Your task to perform on an android device: delete location history Image 0: 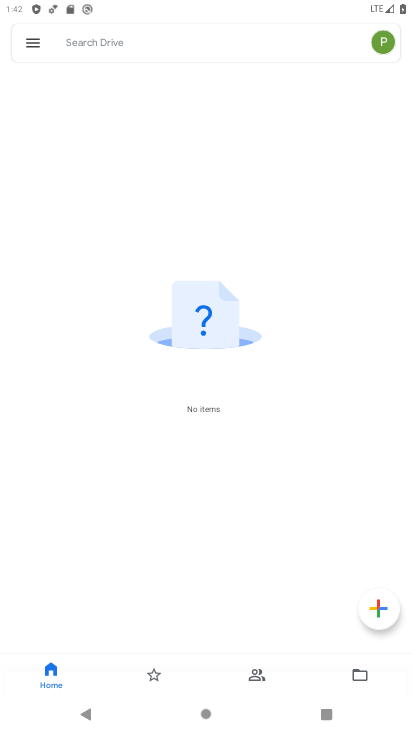
Step 0: press home button
Your task to perform on an android device: delete location history Image 1: 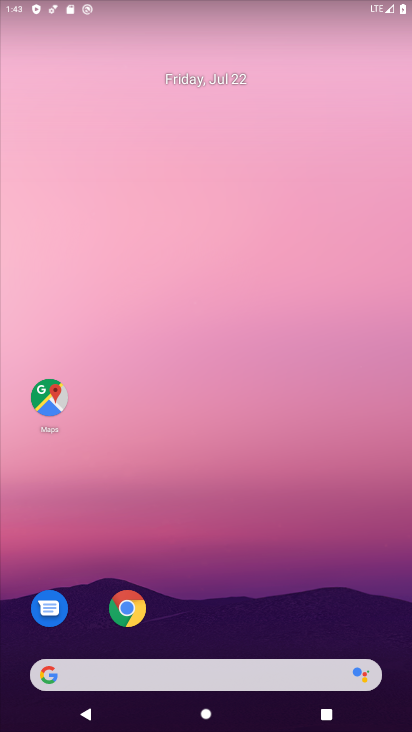
Step 1: drag from (393, 667) to (303, 42)
Your task to perform on an android device: delete location history Image 2: 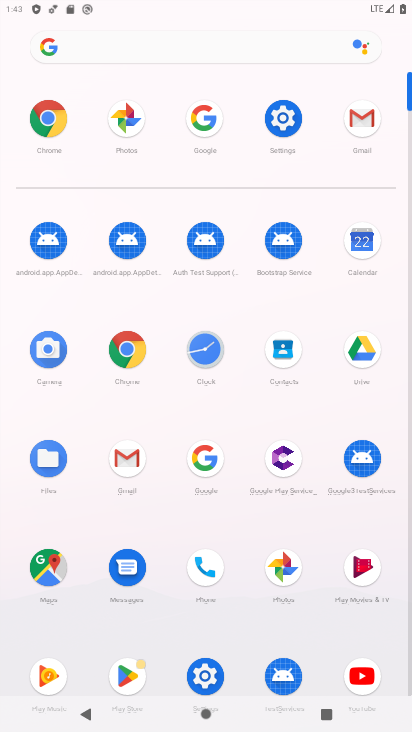
Step 2: click (288, 123)
Your task to perform on an android device: delete location history Image 3: 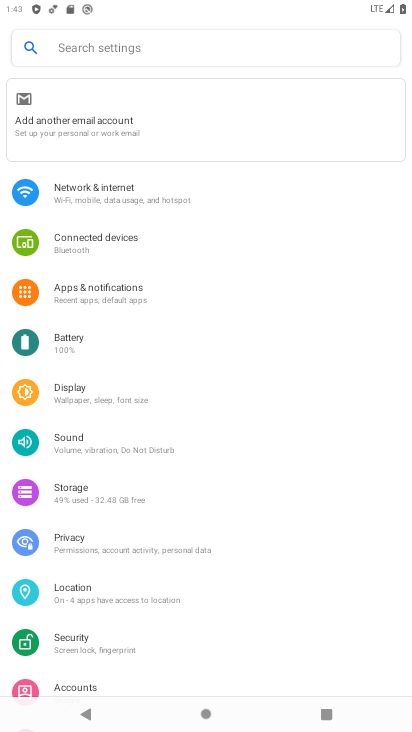
Step 3: click (68, 589)
Your task to perform on an android device: delete location history Image 4: 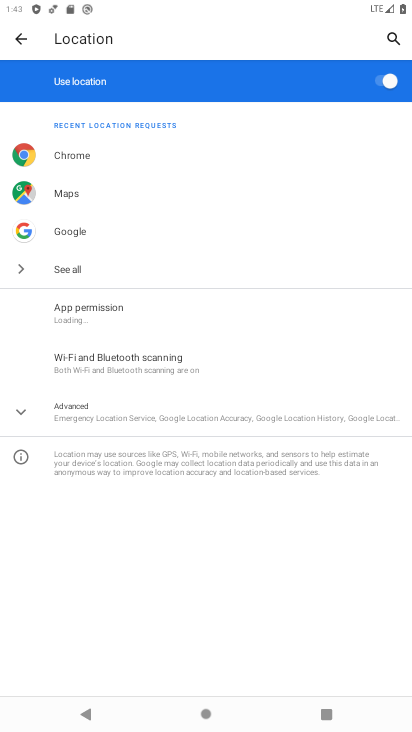
Step 4: click (18, 417)
Your task to perform on an android device: delete location history Image 5: 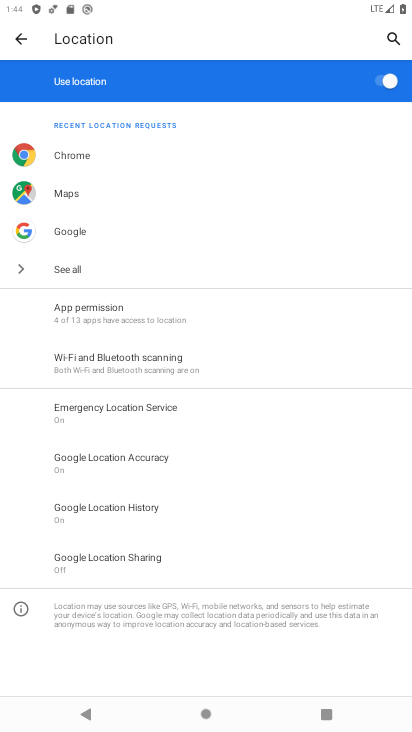
Step 5: task complete